Your task to perform on an android device: move an email to a new category in the gmail app Image 0: 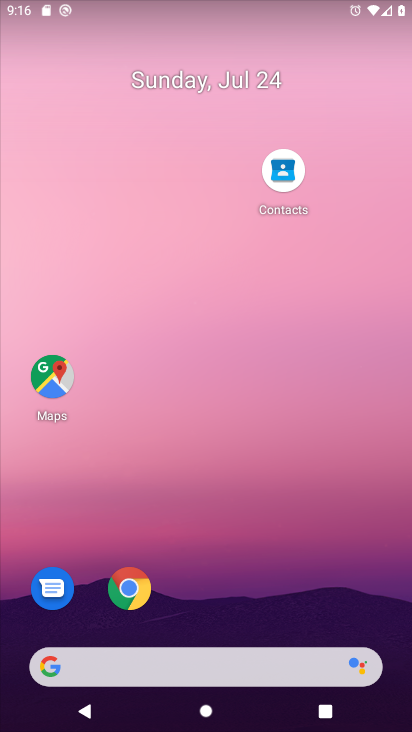
Step 0: press home button
Your task to perform on an android device: move an email to a new category in the gmail app Image 1: 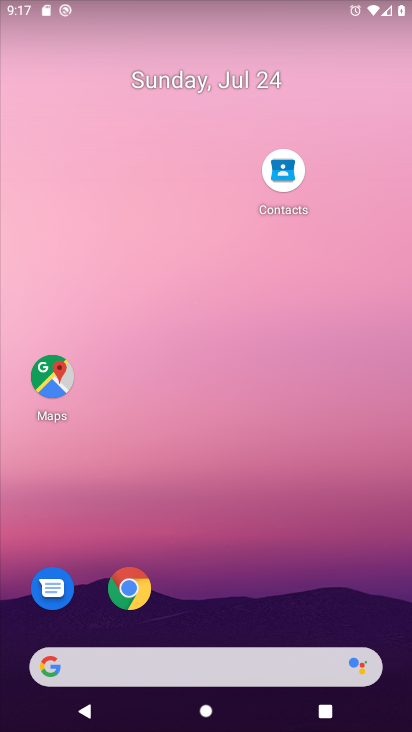
Step 1: drag from (206, 626) to (174, 57)
Your task to perform on an android device: move an email to a new category in the gmail app Image 2: 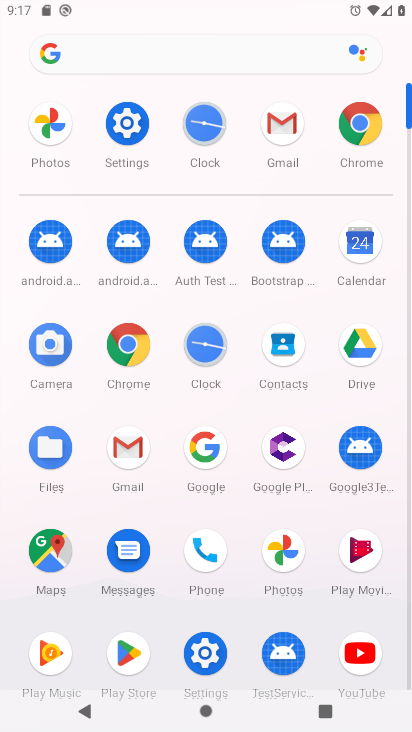
Step 2: click (278, 119)
Your task to perform on an android device: move an email to a new category in the gmail app Image 3: 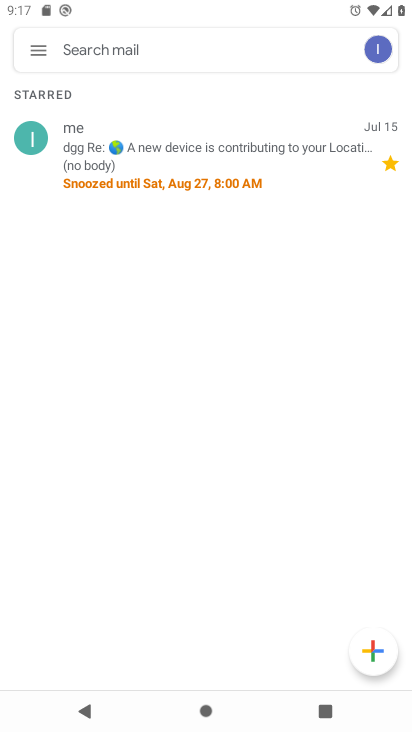
Step 3: click (35, 126)
Your task to perform on an android device: move an email to a new category in the gmail app Image 4: 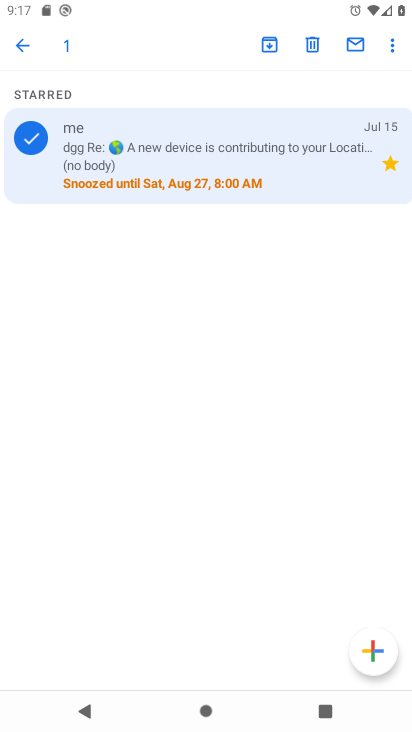
Step 4: click (388, 42)
Your task to perform on an android device: move an email to a new category in the gmail app Image 5: 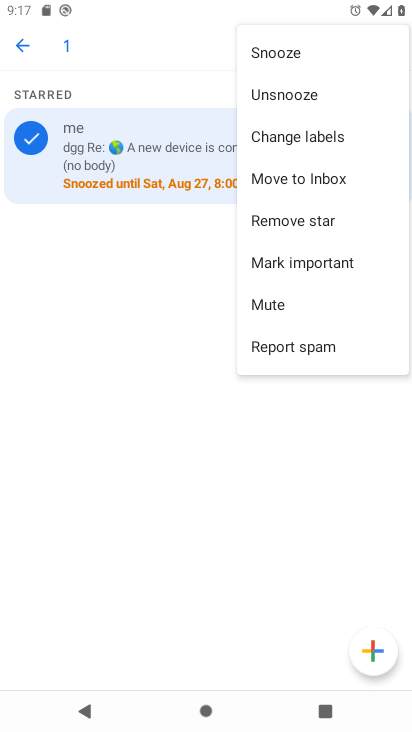
Step 5: click (308, 172)
Your task to perform on an android device: move an email to a new category in the gmail app Image 6: 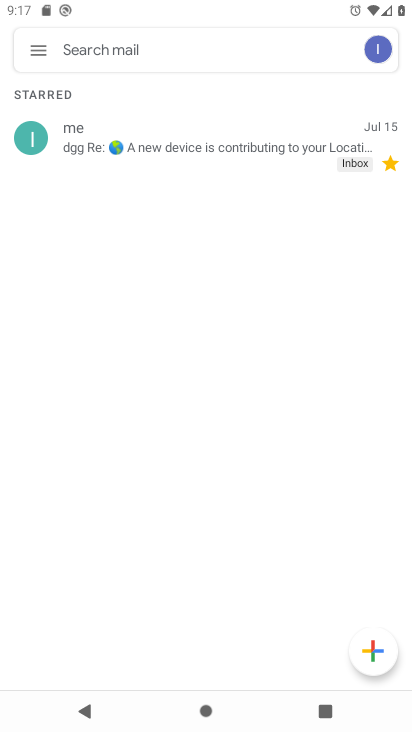
Step 6: task complete